Your task to perform on an android device: Open network settings Image 0: 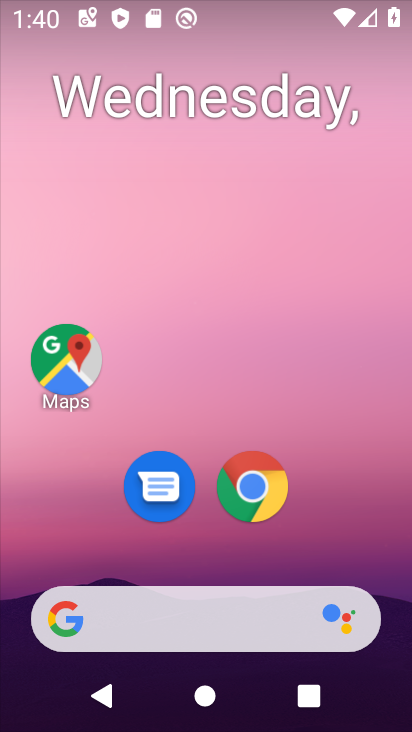
Step 0: drag from (221, 402) to (234, 29)
Your task to perform on an android device: Open network settings Image 1: 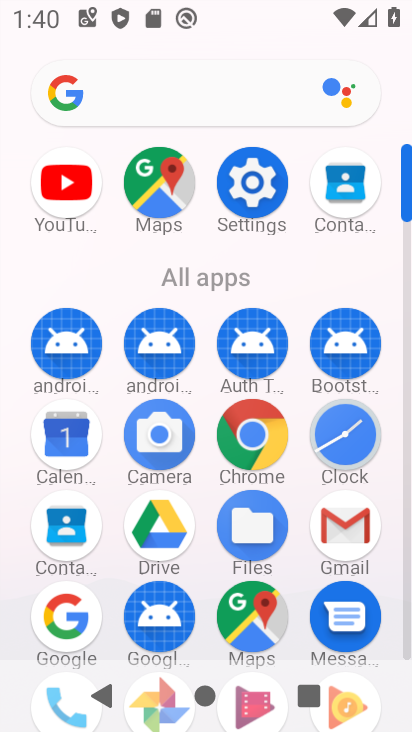
Step 1: click (255, 175)
Your task to perform on an android device: Open network settings Image 2: 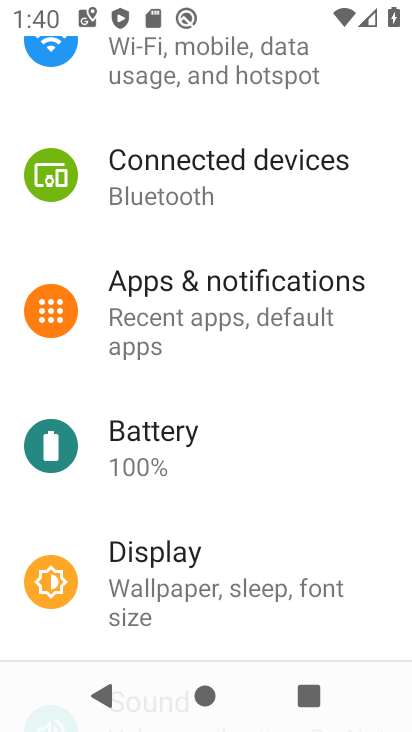
Step 2: drag from (204, 102) to (184, 573)
Your task to perform on an android device: Open network settings Image 3: 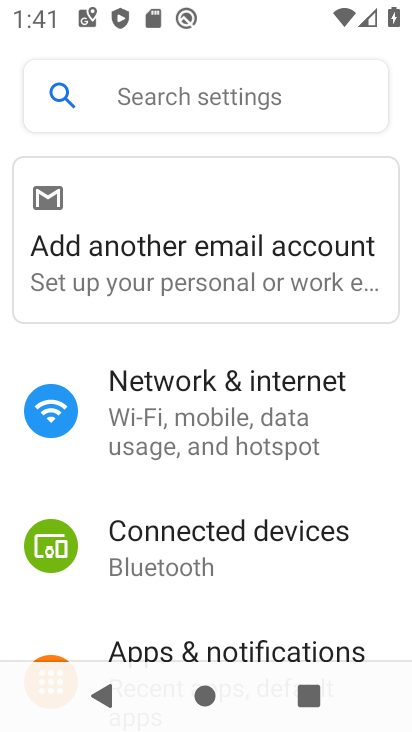
Step 3: click (176, 418)
Your task to perform on an android device: Open network settings Image 4: 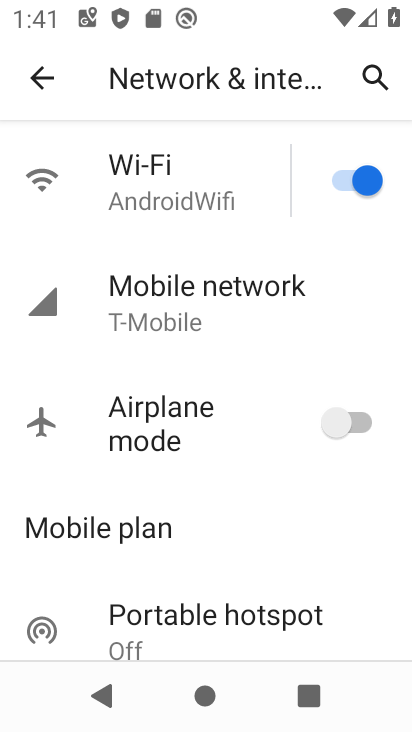
Step 4: task complete